Your task to perform on an android device: turn vacation reply on in the gmail app Image 0: 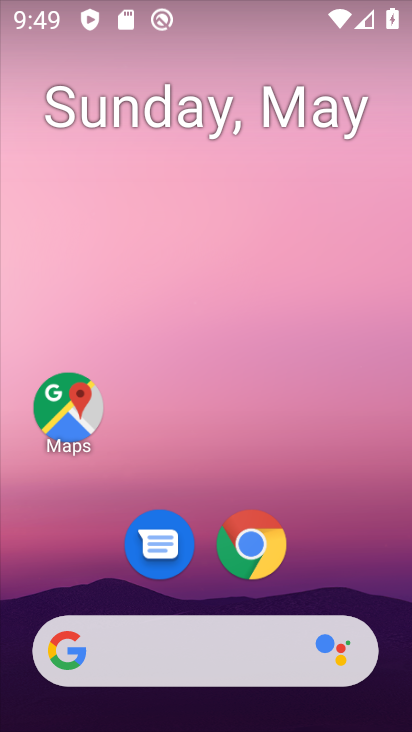
Step 0: drag from (213, 531) to (240, 104)
Your task to perform on an android device: turn vacation reply on in the gmail app Image 1: 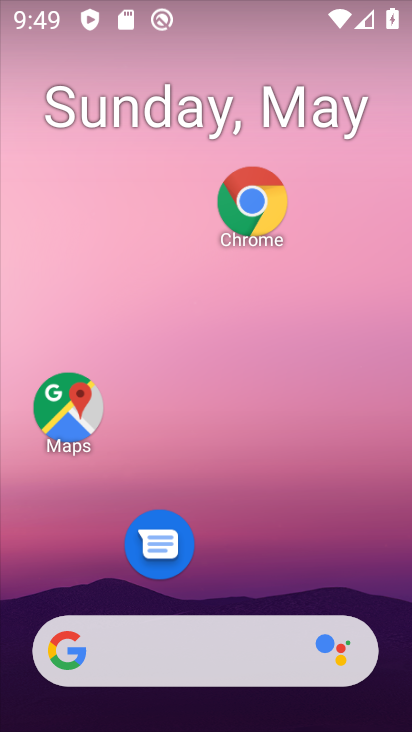
Step 1: drag from (251, 510) to (301, 52)
Your task to perform on an android device: turn vacation reply on in the gmail app Image 2: 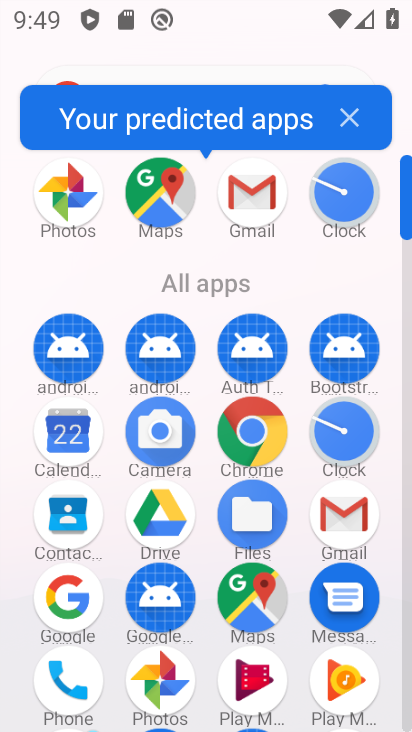
Step 2: click (253, 201)
Your task to perform on an android device: turn vacation reply on in the gmail app Image 3: 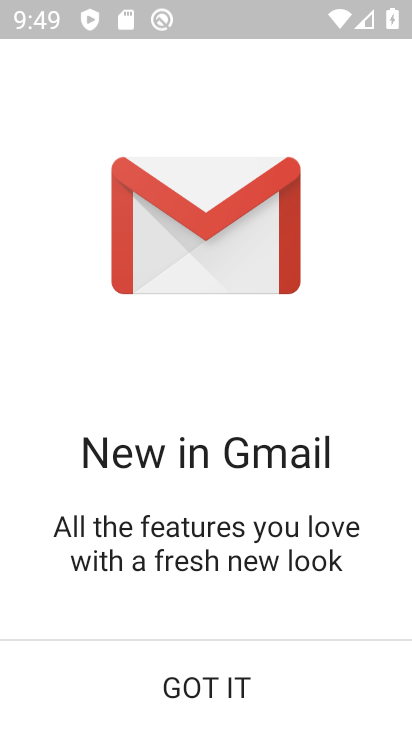
Step 3: click (180, 693)
Your task to perform on an android device: turn vacation reply on in the gmail app Image 4: 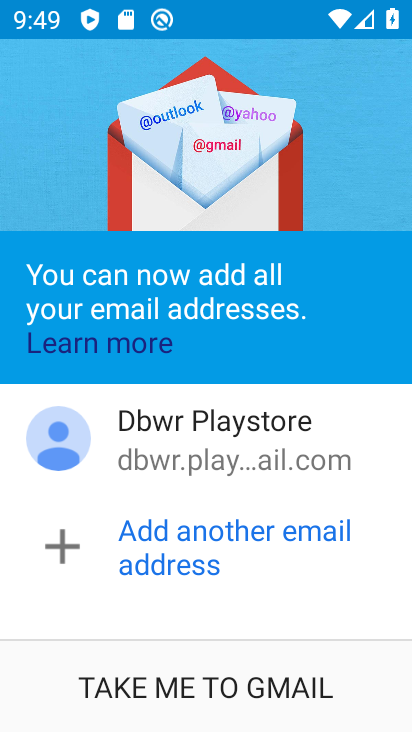
Step 4: click (174, 669)
Your task to perform on an android device: turn vacation reply on in the gmail app Image 5: 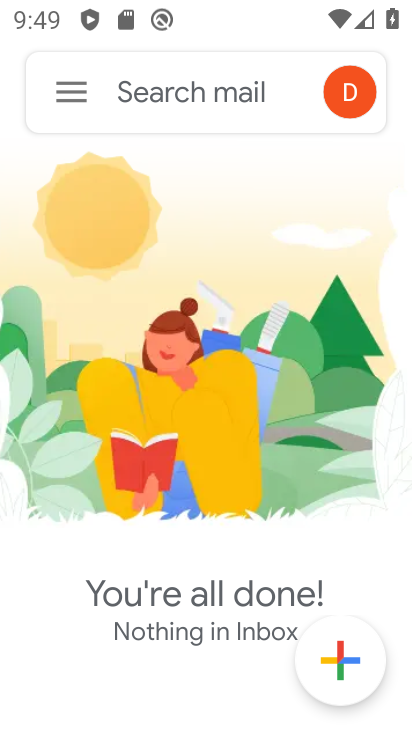
Step 5: click (58, 86)
Your task to perform on an android device: turn vacation reply on in the gmail app Image 6: 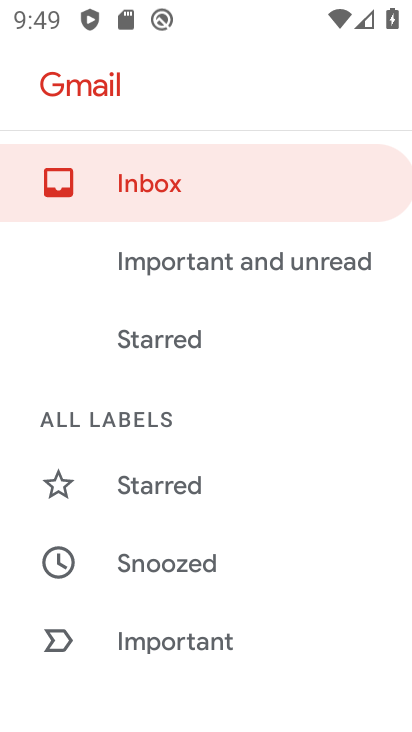
Step 6: drag from (212, 613) to (299, 81)
Your task to perform on an android device: turn vacation reply on in the gmail app Image 7: 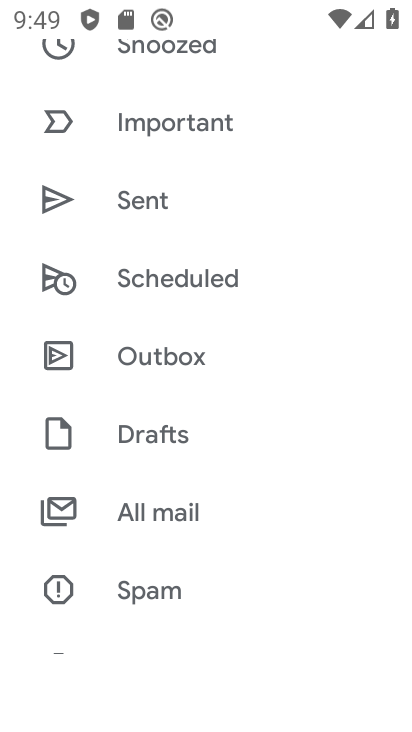
Step 7: drag from (144, 610) to (213, 93)
Your task to perform on an android device: turn vacation reply on in the gmail app Image 8: 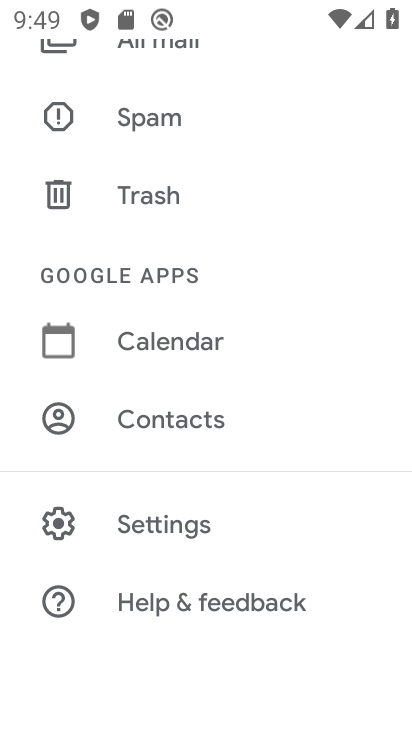
Step 8: click (167, 516)
Your task to perform on an android device: turn vacation reply on in the gmail app Image 9: 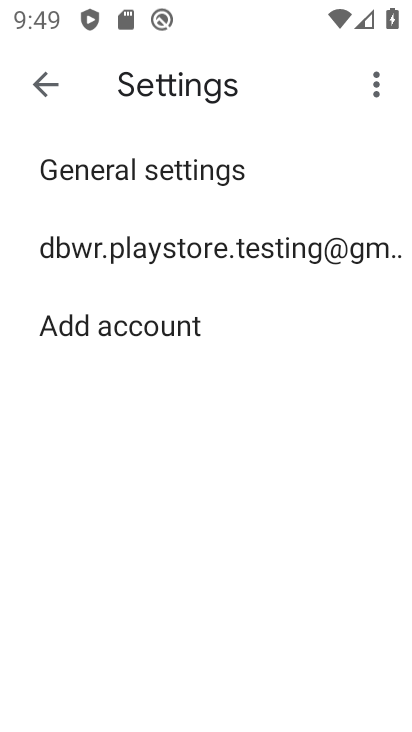
Step 9: click (140, 239)
Your task to perform on an android device: turn vacation reply on in the gmail app Image 10: 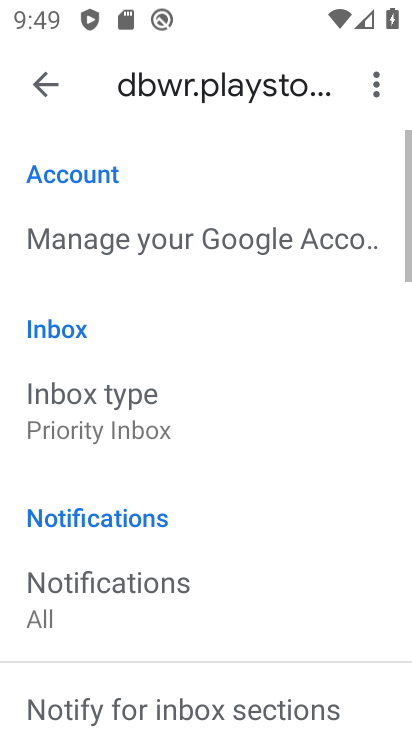
Step 10: drag from (211, 572) to (254, 73)
Your task to perform on an android device: turn vacation reply on in the gmail app Image 11: 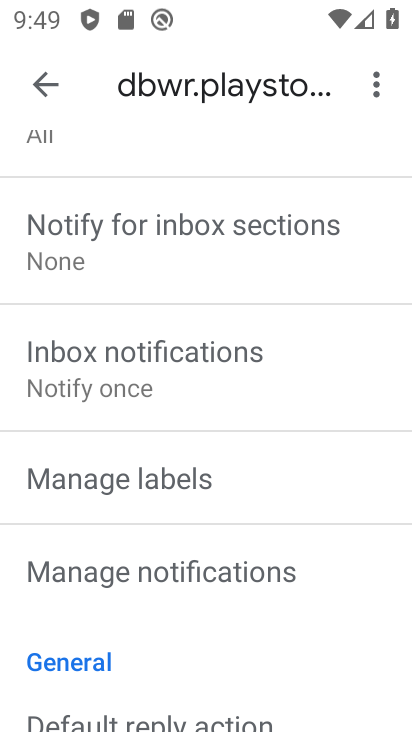
Step 11: drag from (205, 608) to (245, 184)
Your task to perform on an android device: turn vacation reply on in the gmail app Image 12: 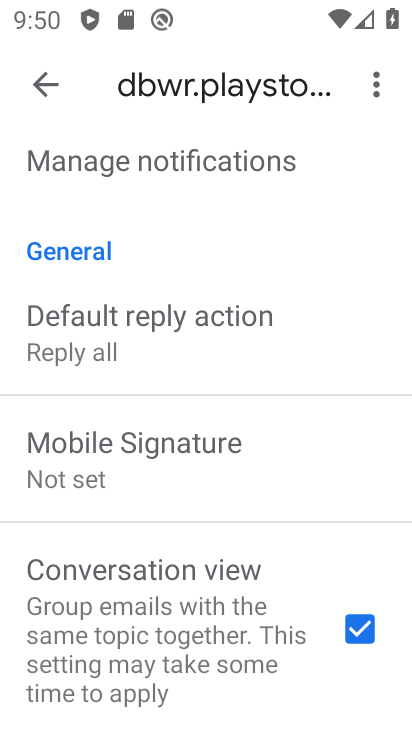
Step 12: drag from (257, 601) to (252, 167)
Your task to perform on an android device: turn vacation reply on in the gmail app Image 13: 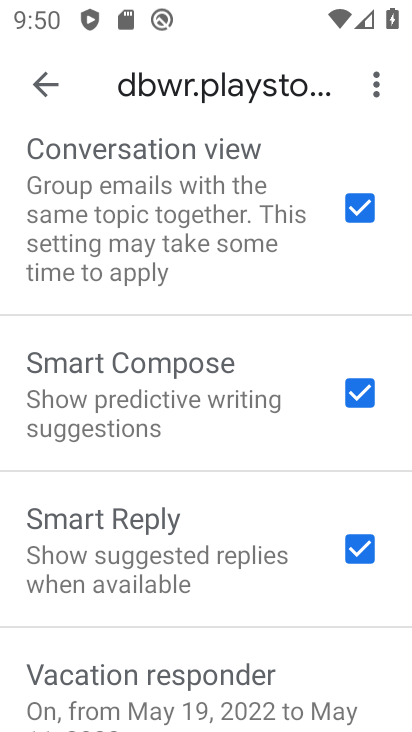
Step 13: click (90, 675)
Your task to perform on an android device: turn vacation reply on in the gmail app Image 14: 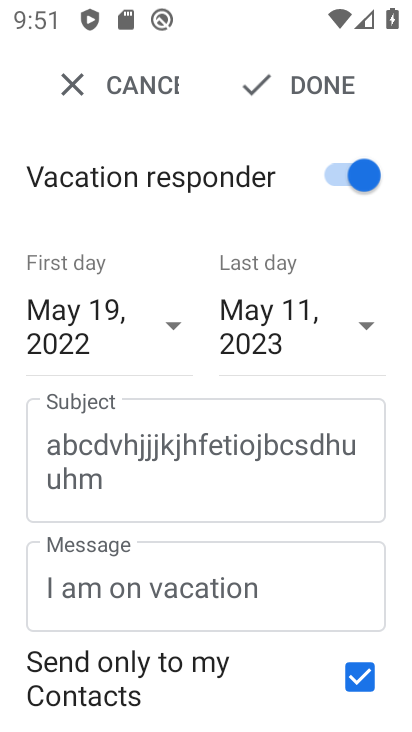
Step 14: task complete